Your task to perform on an android device: Open battery settings Image 0: 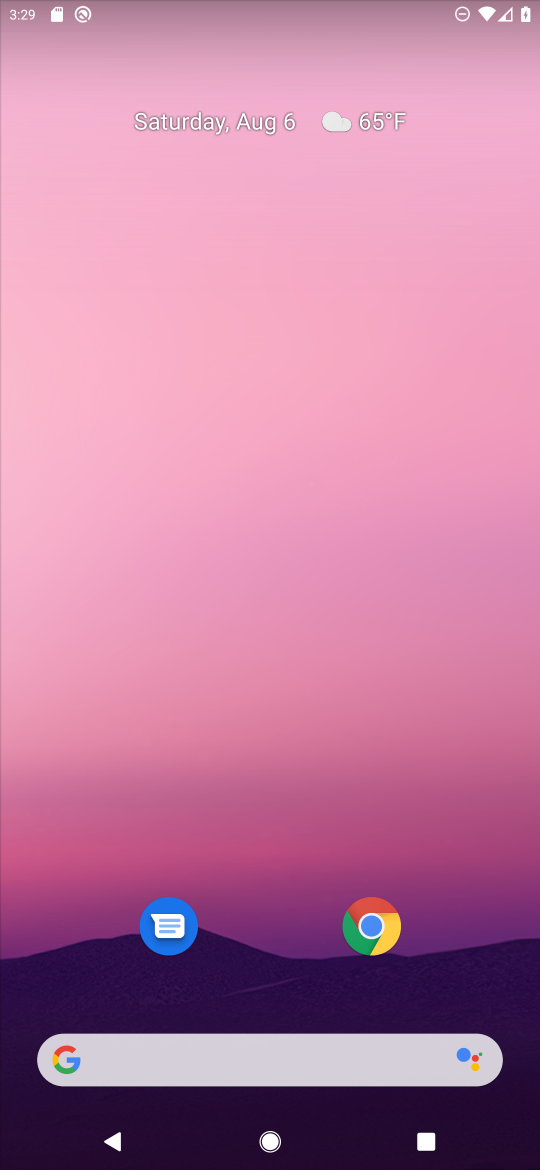
Step 0: drag from (265, 892) to (267, 214)
Your task to perform on an android device: Open battery settings Image 1: 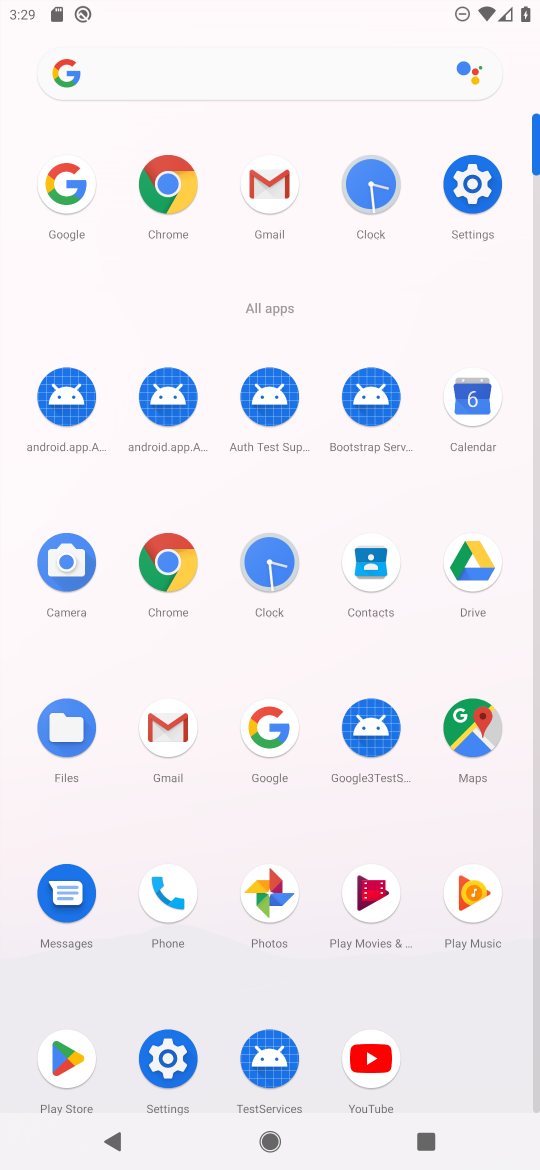
Step 1: click (457, 197)
Your task to perform on an android device: Open battery settings Image 2: 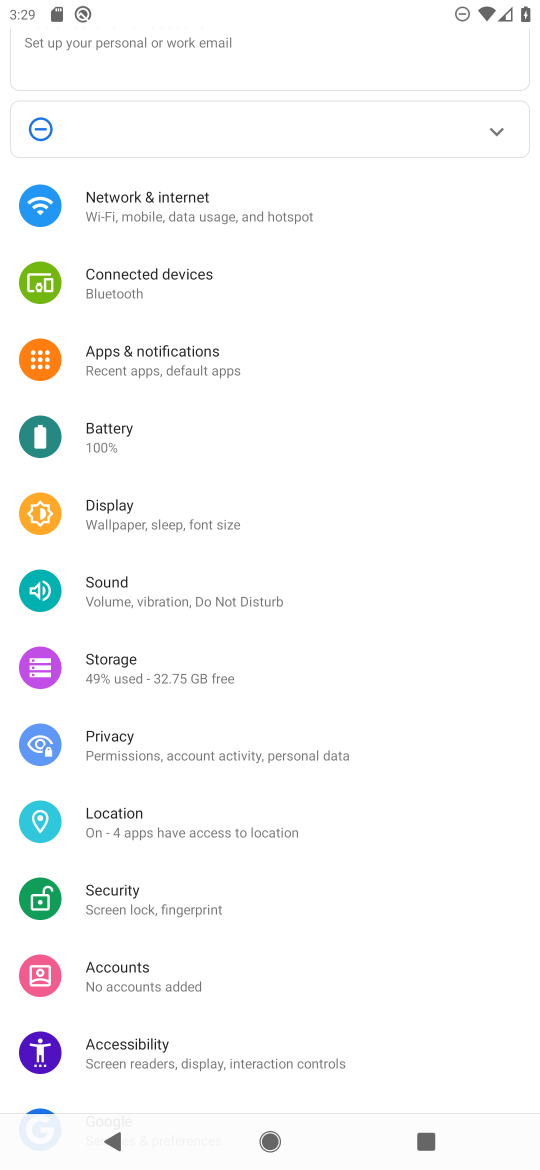
Step 2: click (136, 447)
Your task to perform on an android device: Open battery settings Image 3: 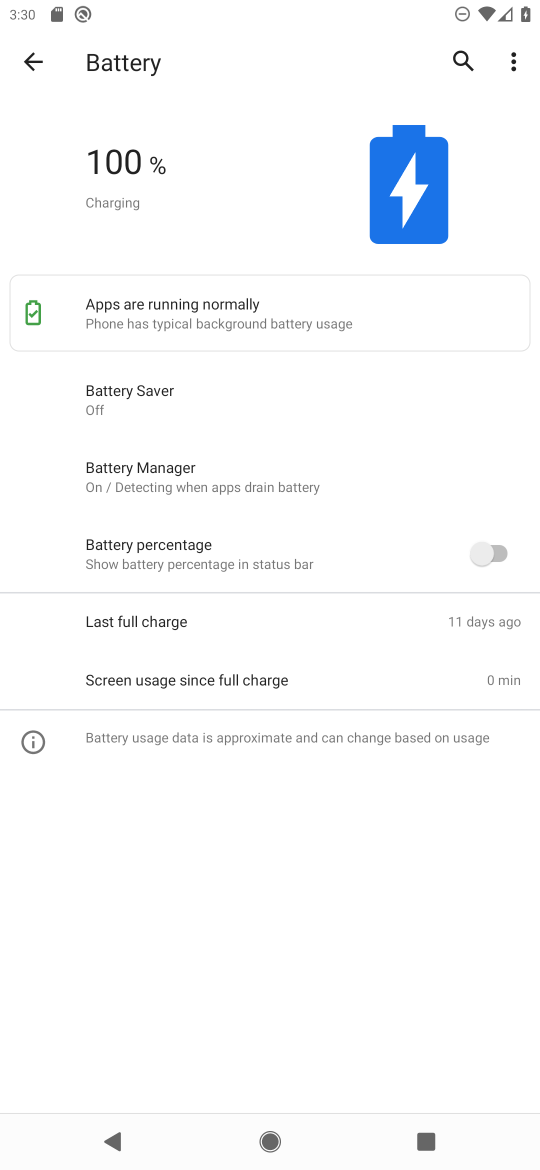
Step 3: task complete